Your task to perform on an android device: open a bookmark in the chrome app Image 0: 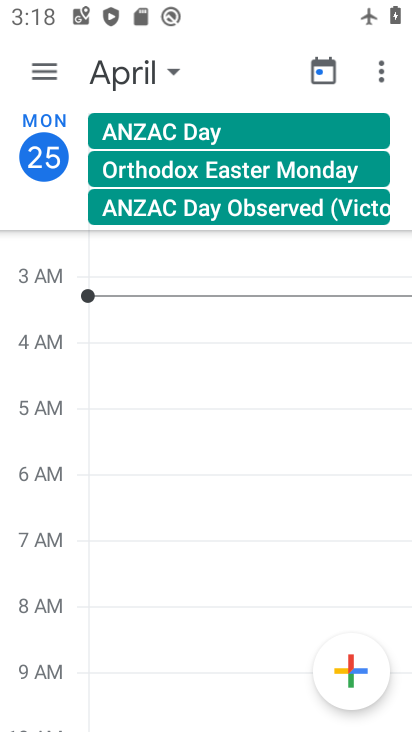
Step 0: press home button
Your task to perform on an android device: open a bookmark in the chrome app Image 1: 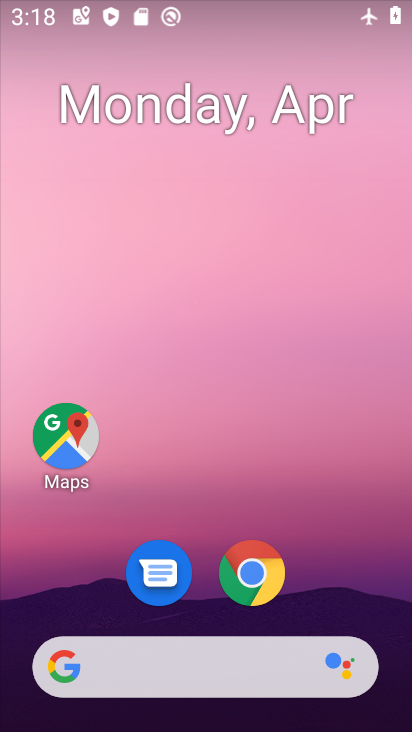
Step 1: drag from (333, 545) to (345, 84)
Your task to perform on an android device: open a bookmark in the chrome app Image 2: 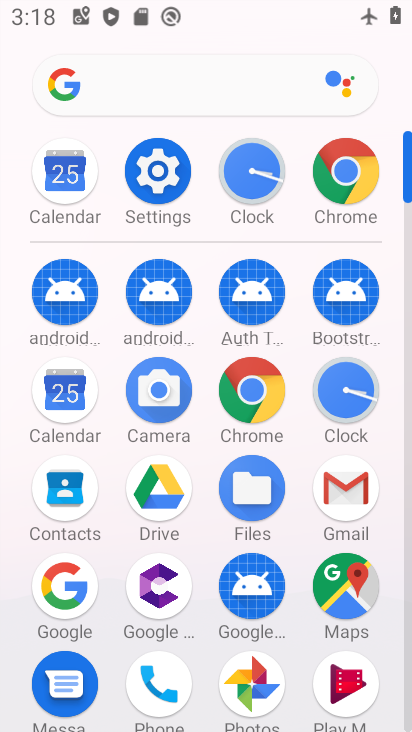
Step 2: click (343, 177)
Your task to perform on an android device: open a bookmark in the chrome app Image 3: 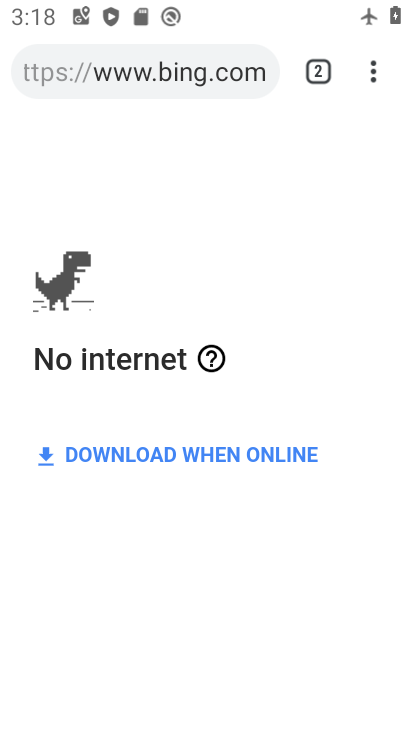
Step 3: click (375, 77)
Your task to perform on an android device: open a bookmark in the chrome app Image 4: 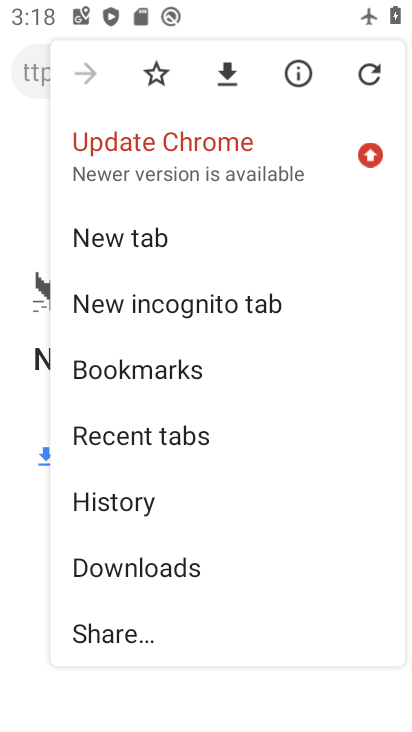
Step 4: click (192, 373)
Your task to perform on an android device: open a bookmark in the chrome app Image 5: 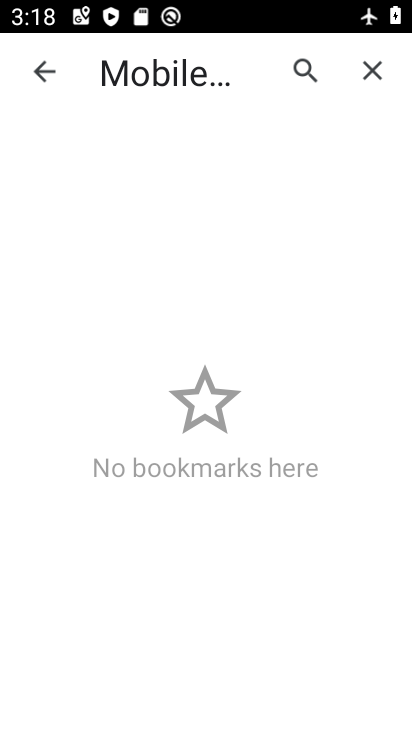
Step 5: task complete